Your task to perform on an android device: Open display settings Image 0: 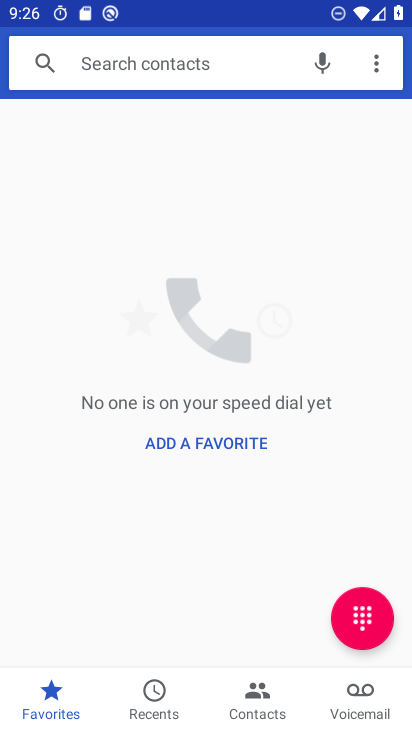
Step 0: press home button
Your task to perform on an android device: Open display settings Image 1: 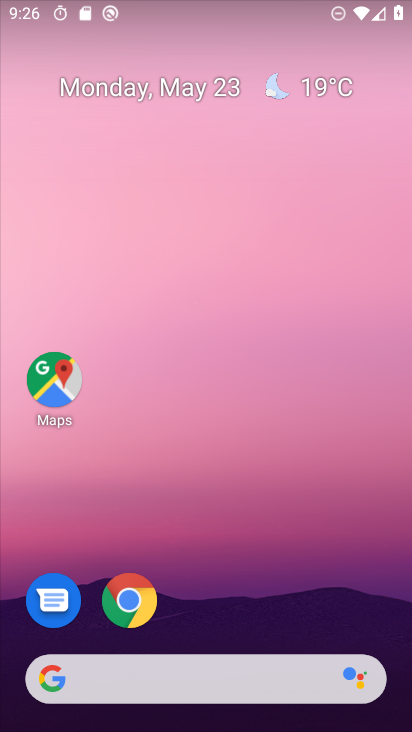
Step 1: drag from (12, 597) to (233, 84)
Your task to perform on an android device: Open display settings Image 2: 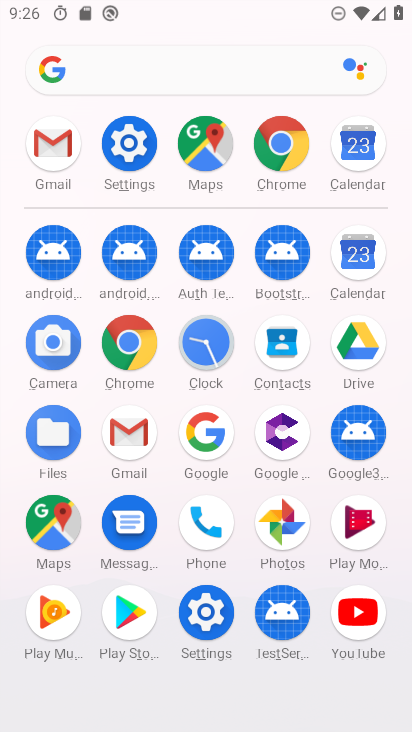
Step 2: click (106, 148)
Your task to perform on an android device: Open display settings Image 3: 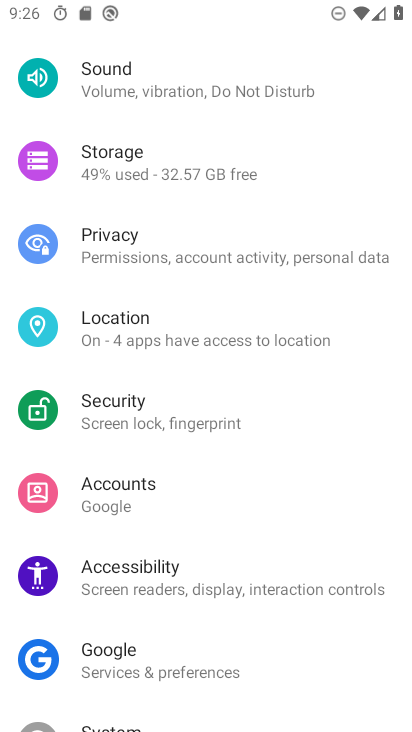
Step 3: drag from (20, 562) to (267, 95)
Your task to perform on an android device: Open display settings Image 4: 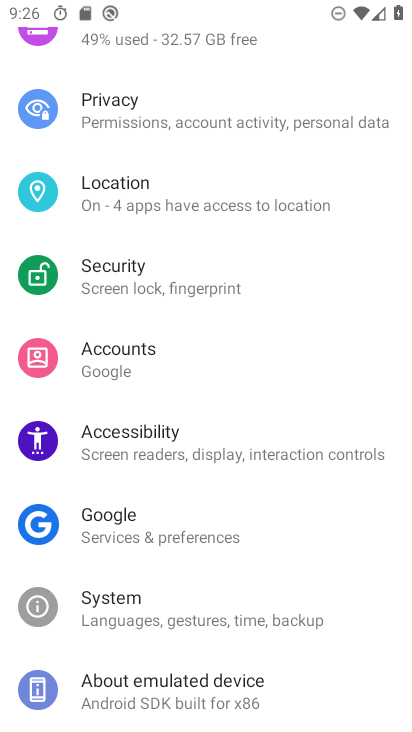
Step 4: drag from (281, 61) to (158, 715)
Your task to perform on an android device: Open display settings Image 5: 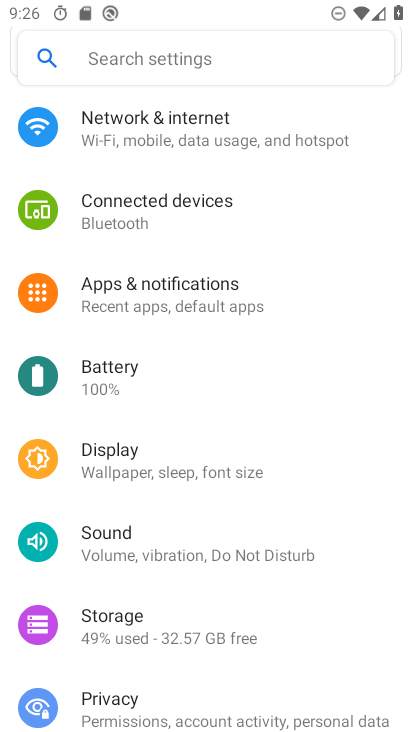
Step 5: click (123, 480)
Your task to perform on an android device: Open display settings Image 6: 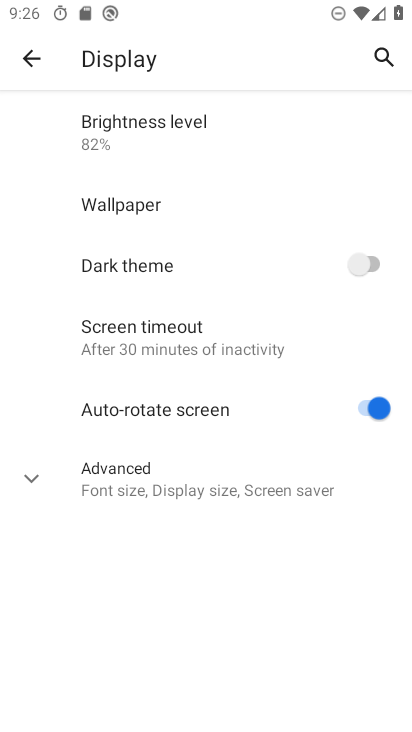
Step 6: task complete